Your task to perform on an android device: Open Youtube and go to the subscriptions tab Image 0: 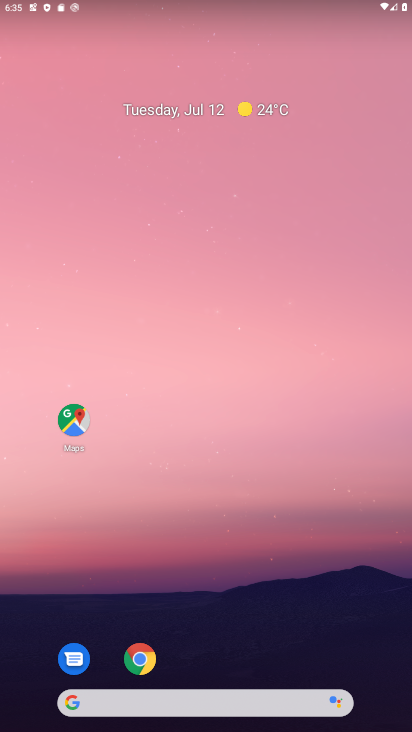
Step 0: drag from (368, 712) to (153, 8)
Your task to perform on an android device: Open Youtube and go to the subscriptions tab Image 1: 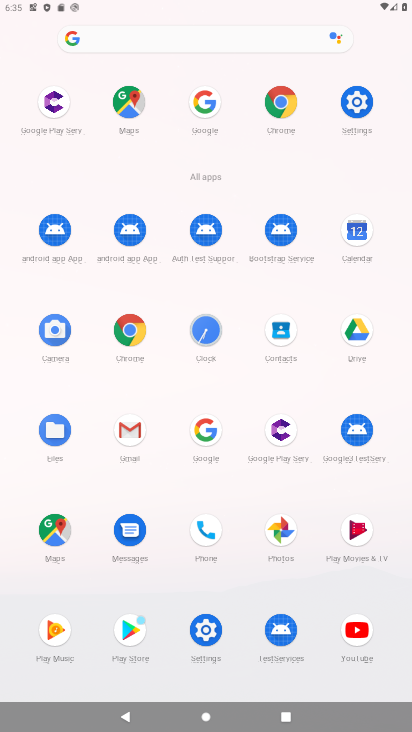
Step 1: click (363, 637)
Your task to perform on an android device: Open Youtube and go to the subscriptions tab Image 2: 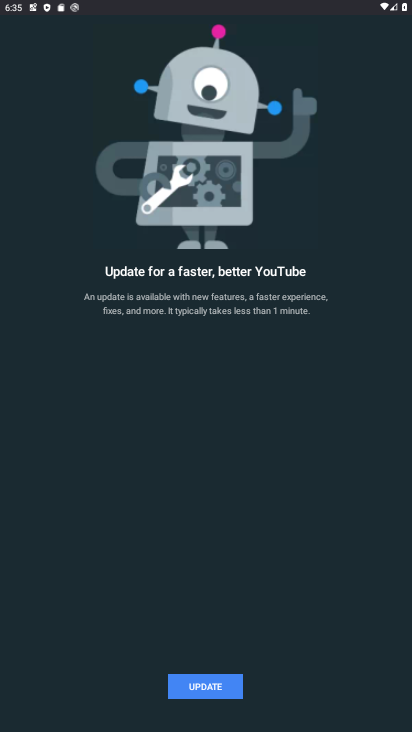
Step 2: click (204, 687)
Your task to perform on an android device: Open Youtube and go to the subscriptions tab Image 3: 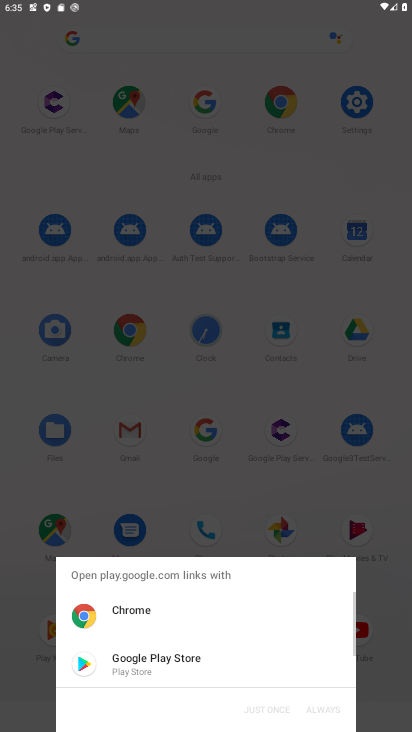
Step 3: click (88, 673)
Your task to perform on an android device: Open Youtube and go to the subscriptions tab Image 4: 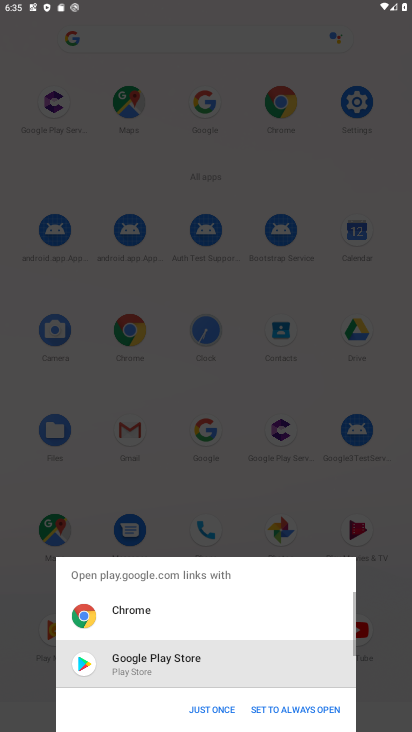
Step 4: click (199, 708)
Your task to perform on an android device: Open Youtube and go to the subscriptions tab Image 5: 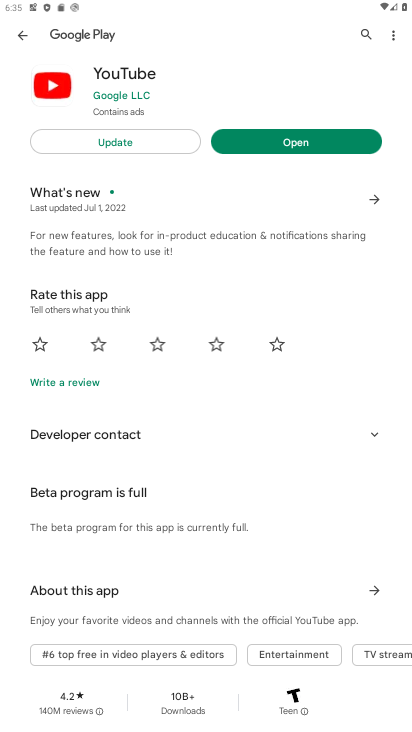
Step 5: click (98, 141)
Your task to perform on an android device: Open Youtube and go to the subscriptions tab Image 6: 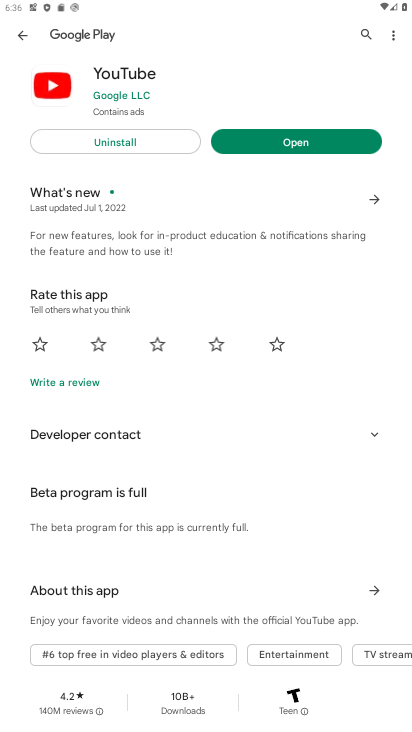
Step 6: click (294, 148)
Your task to perform on an android device: Open Youtube and go to the subscriptions tab Image 7: 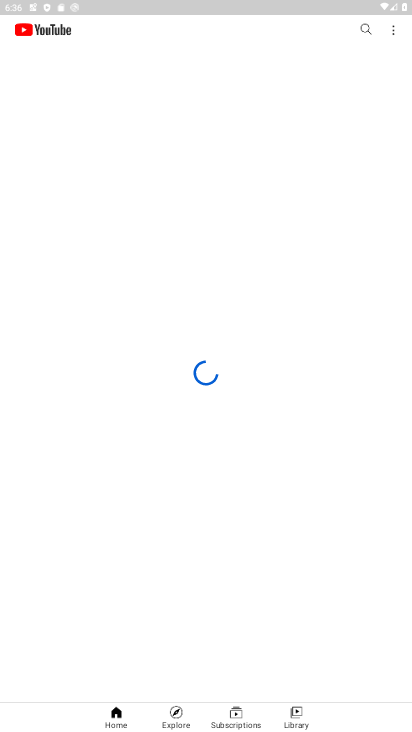
Step 7: click (241, 712)
Your task to perform on an android device: Open Youtube and go to the subscriptions tab Image 8: 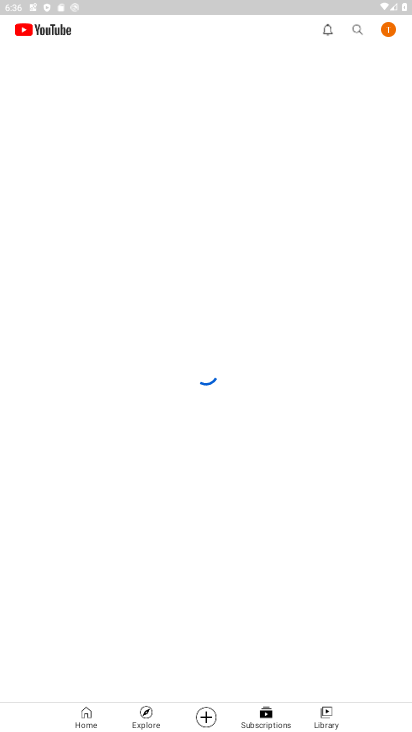
Step 8: click (265, 712)
Your task to perform on an android device: Open Youtube and go to the subscriptions tab Image 9: 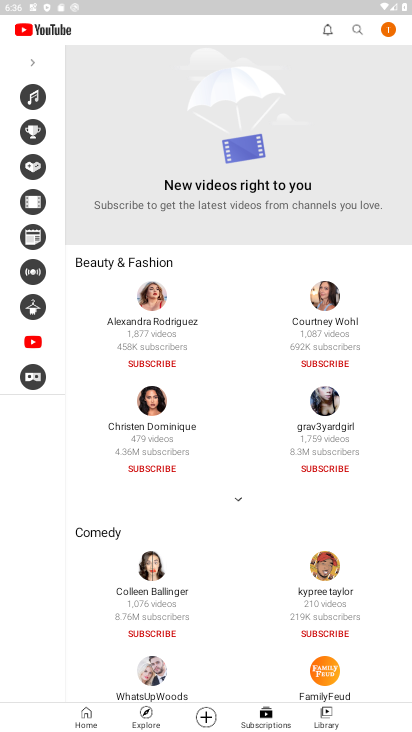
Step 9: task complete